Your task to perform on an android device: Search for seafood restaurants on Google Maps Image 0: 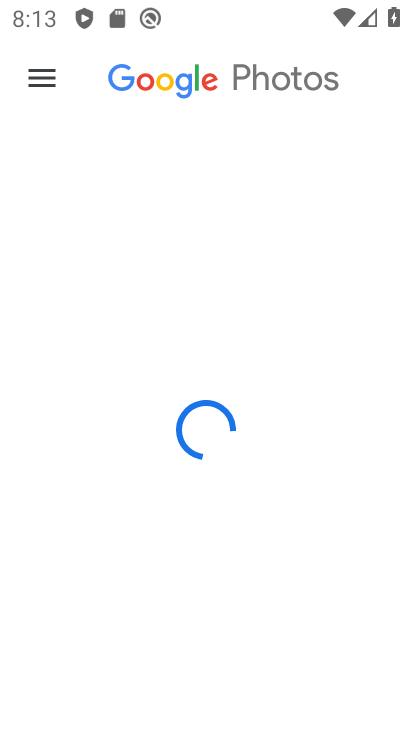
Step 0: press home button
Your task to perform on an android device: Search for seafood restaurants on Google Maps Image 1: 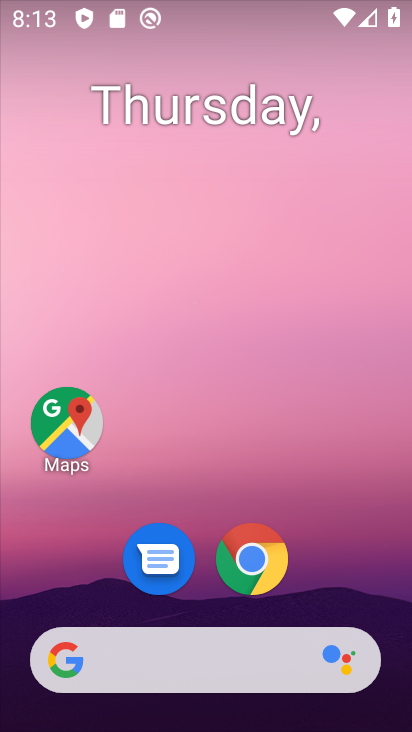
Step 1: click (52, 451)
Your task to perform on an android device: Search for seafood restaurants on Google Maps Image 2: 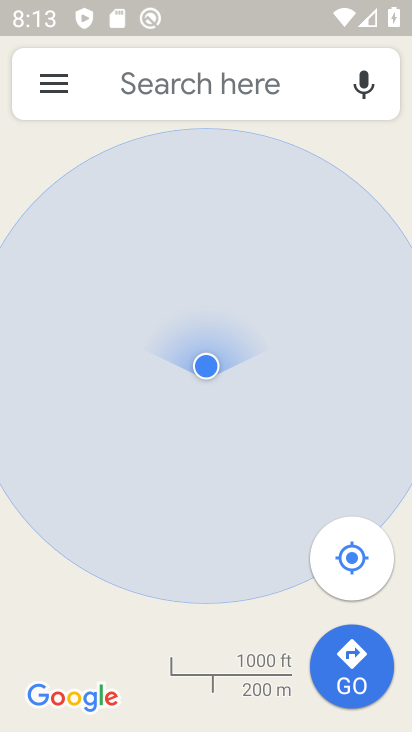
Step 2: click (258, 80)
Your task to perform on an android device: Search for seafood restaurants on Google Maps Image 3: 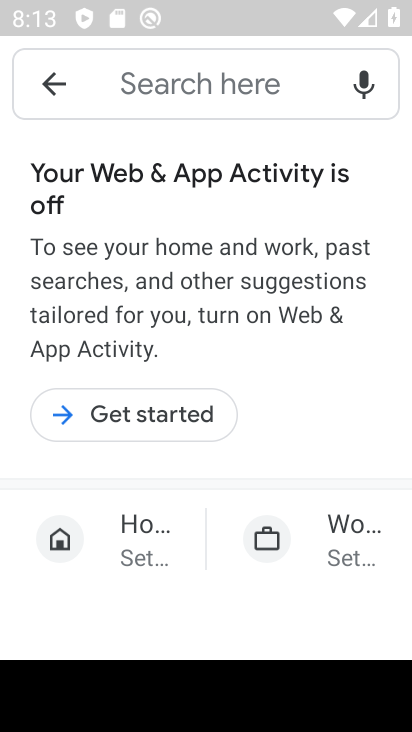
Step 3: click (177, 396)
Your task to perform on an android device: Search for seafood restaurants on Google Maps Image 4: 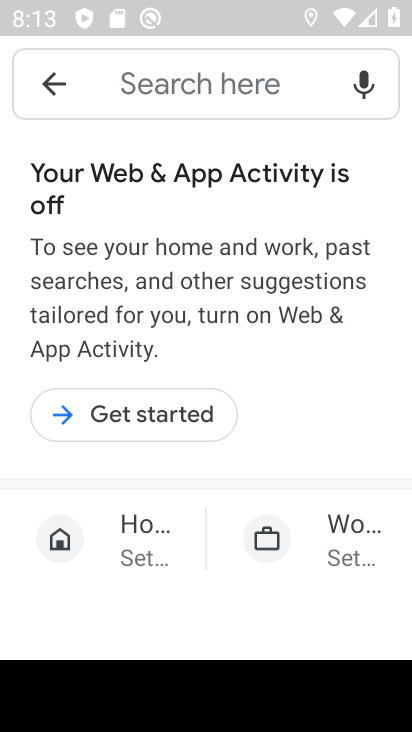
Step 4: click (189, 426)
Your task to perform on an android device: Search for seafood restaurants on Google Maps Image 5: 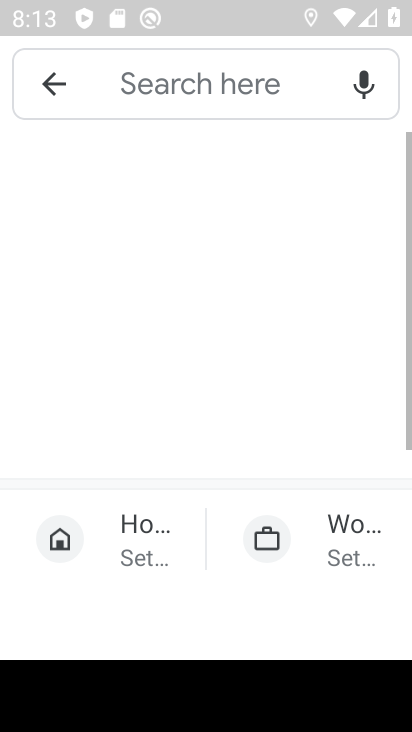
Step 5: click (150, 422)
Your task to perform on an android device: Search for seafood restaurants on Google Maps Image 6: 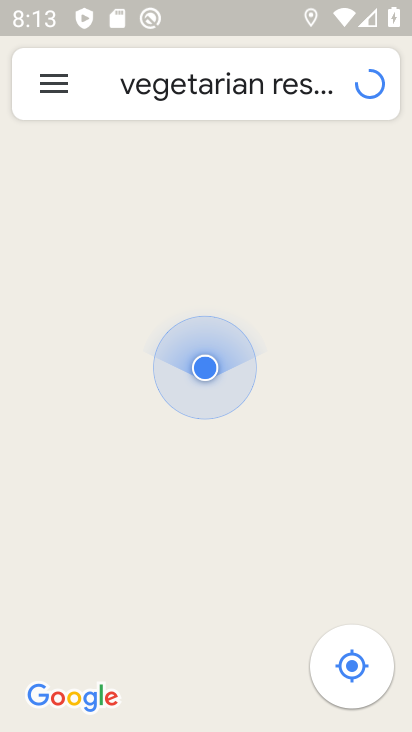
Step 6: click (269, 96)
Your task to perform on an android device: Search for seafood restaurants on Google Maps Image 7: 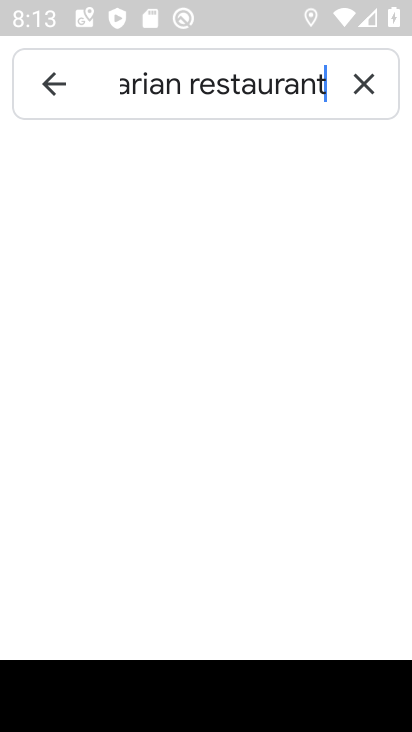
Step 7: click (365, 82)
Your task to perform on an android device: Search for seafood restaurants on Google Maps Image 8: 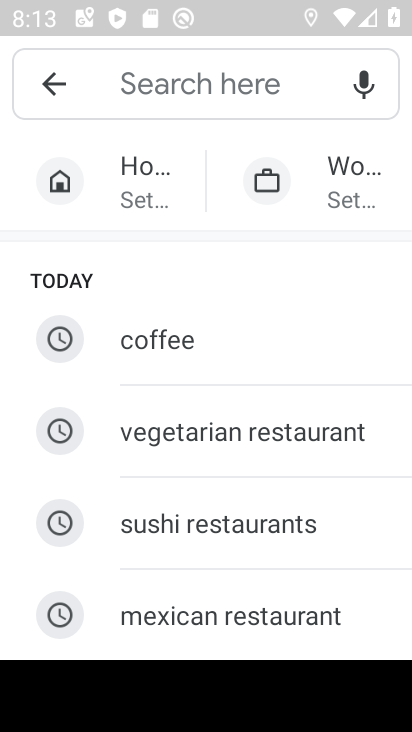
Step 8: drag from (226, 518) to (211, 179)
Your task to perform on an android device: Search for seafood restaurants on Google Maps Image 9: 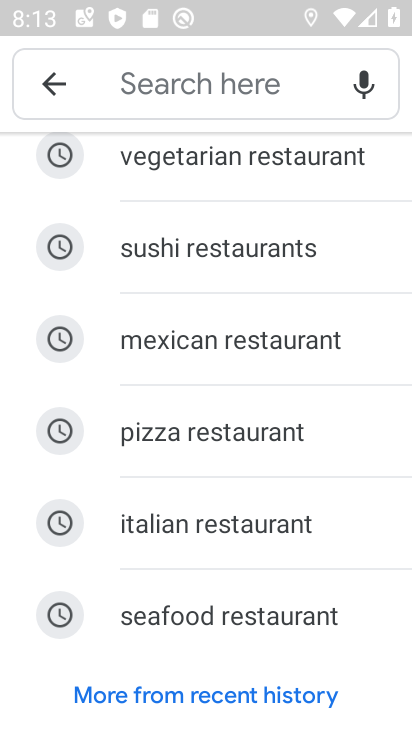
Step 9: click (169, 600)
Your task to perform on an android device: Search for seafood restaurants on Google Maps Image 10: 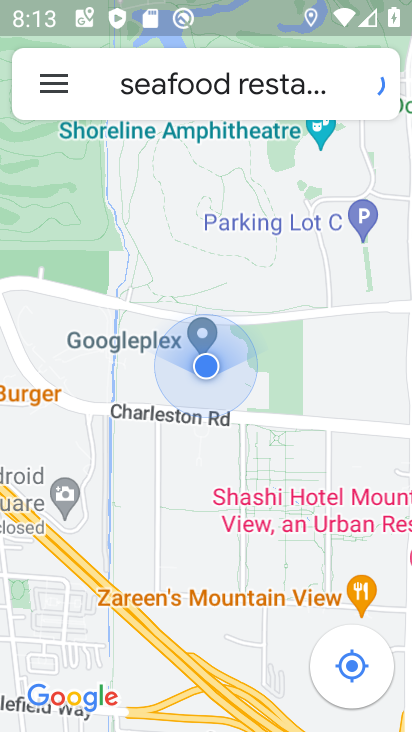
Step 10: task complete